Your task to perform on an android device: Go to Amazon Image 0: 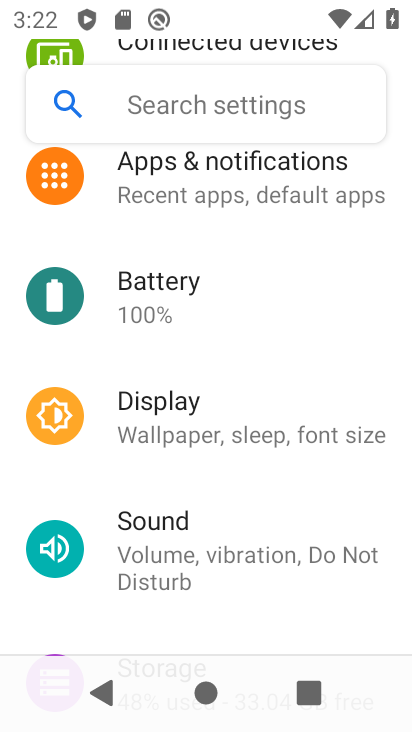
Step 0: press home button
Your task to perform on an android device: Go to Amazon Image 1: 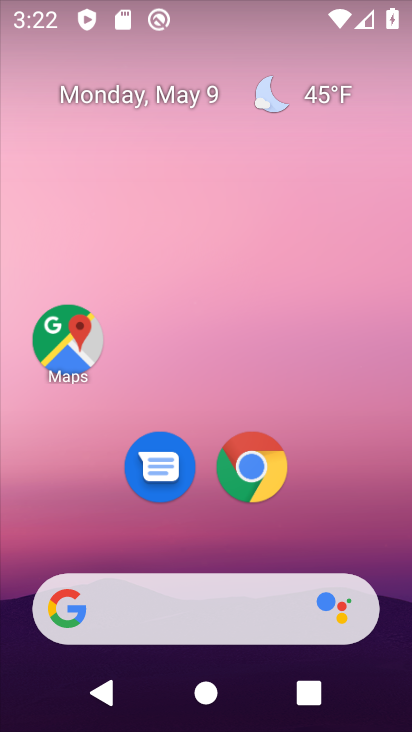
Step 1: click (263, 491)
Your task to perform on an android device: Go to Amazon Image 2: 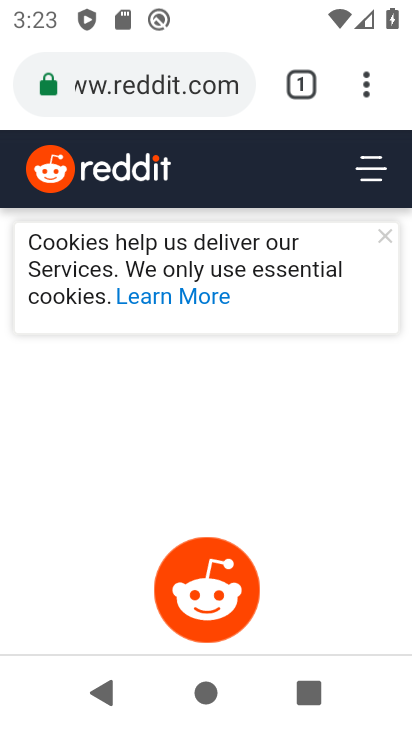
Step 2: click (143, 92)
Your task to perform on an android device: Go to Amazon Image 3: 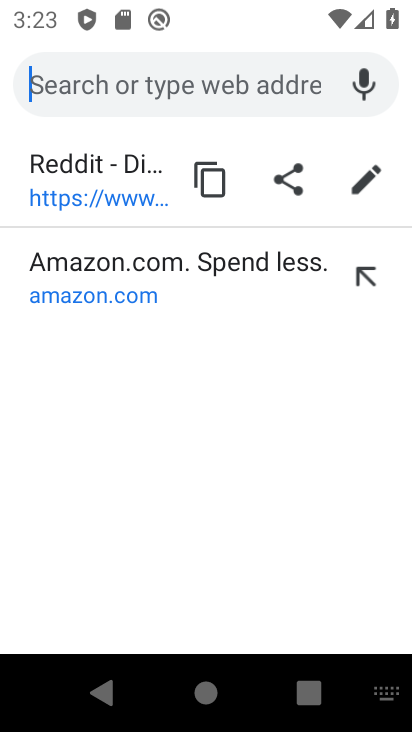
Step 3: click (124, 285)
Your task to perform on an android device: Go to Amazon Image 4: 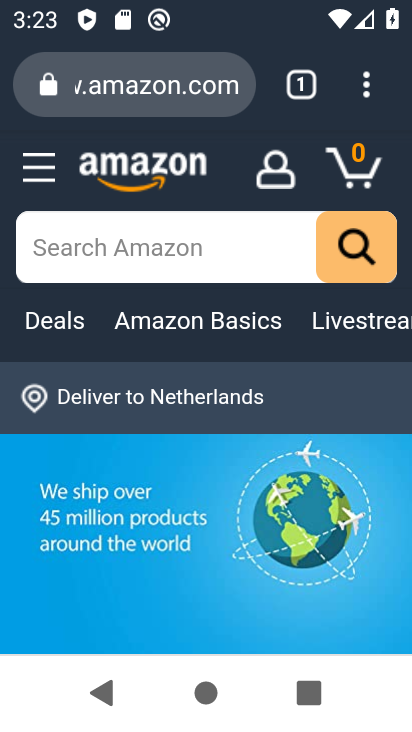
Step 4: task complete